Your task to perform on an android device: Open wifi settings Image 0: 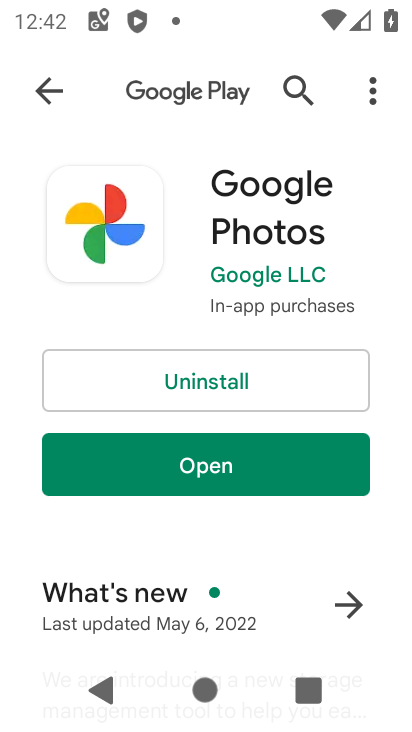
Step 0: press home button
Your task to perform on an android device: Open wifi settings Image 1: 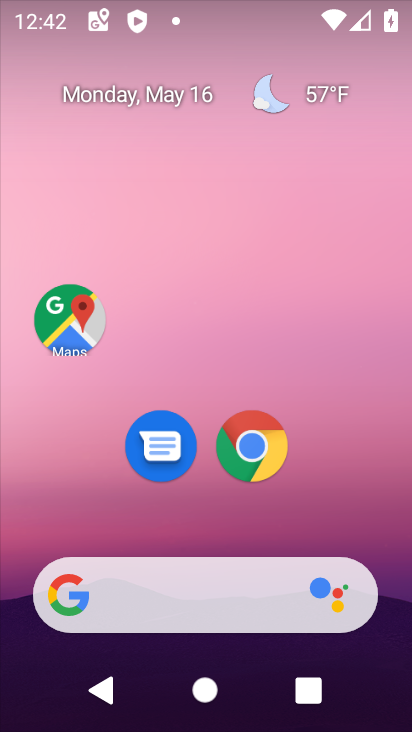
Step 1: drag from (363, 423) to (375, 149)
Your task to perform on an android device: Open wifi settings Image 2: 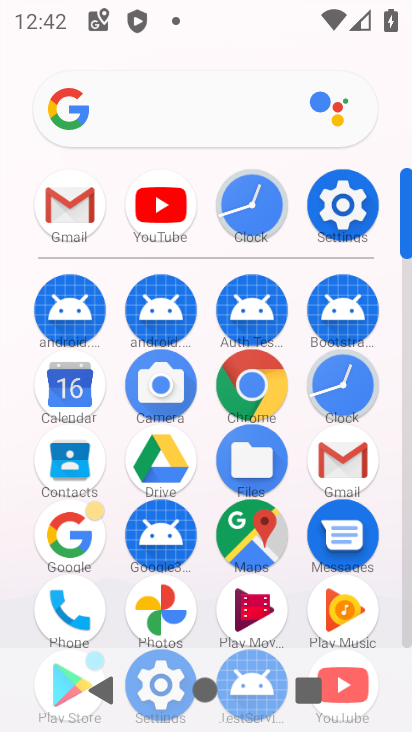
Step 2: click (337, 213)
Your task to perform on an android device: Open wifi settings Image 3: 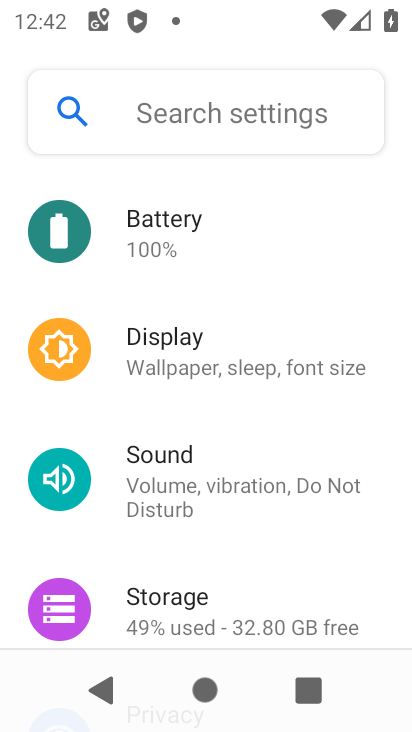
Step 3: drag from (188, 304) to (243, 573)
Your task to perform on an android device: Open wifi settings Image 4: 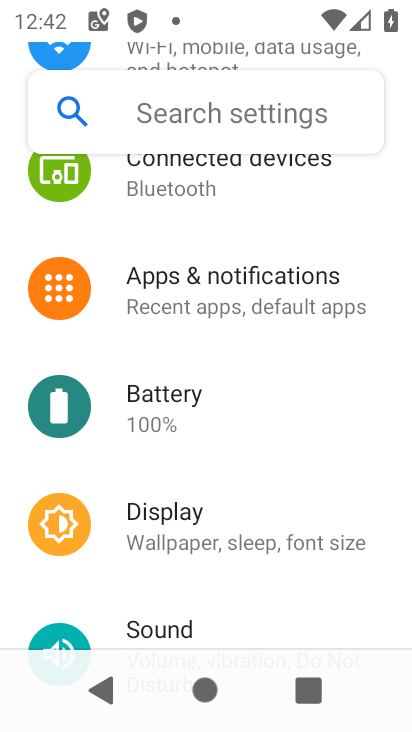
Step 4: drag from (257, 229) to (273, 401)
Your task to perform on an android device: Open wifi settings Image 5: 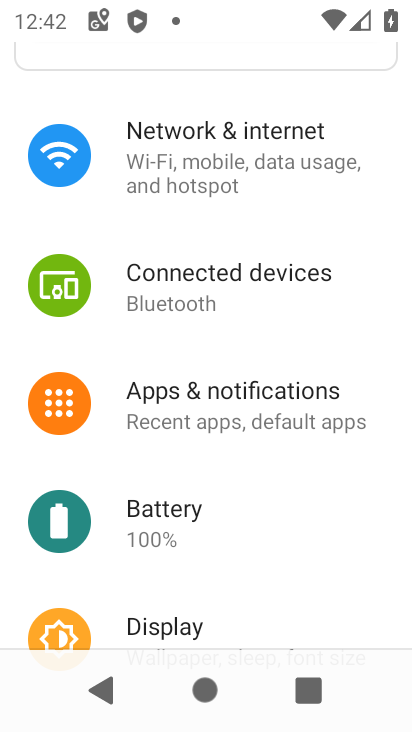
Step 5: click (250, 157)
Your task to perform on an android device: Open wifi settings Image 6: 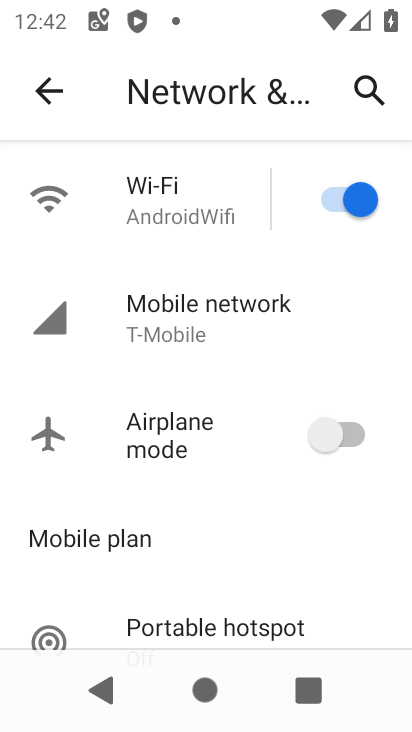
Step 6: click (48, 218)
Your task to perform on an android device: Open wifi settings Image 7: 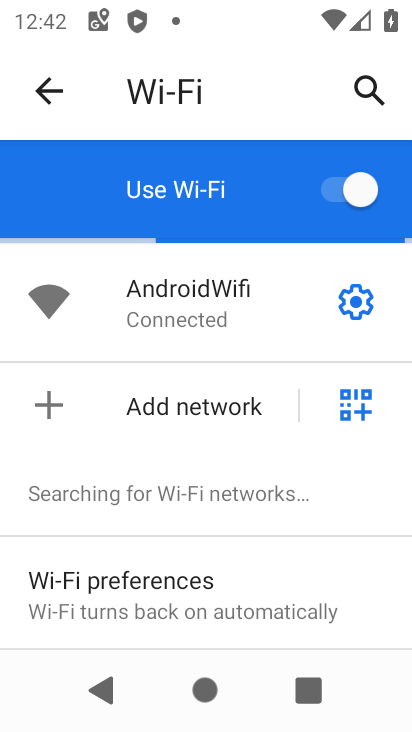
Step 7: task complete